Your task to perform on an android device: toggle pop-ups in chrome Image 0: 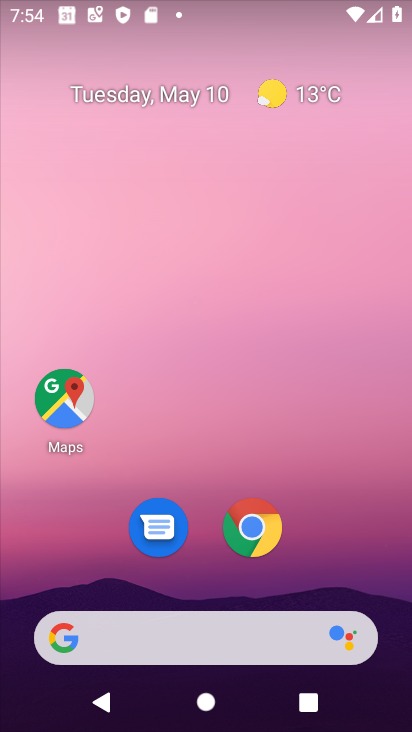
Step 0: click (252, 520)
Your task to perform on an android device: toggle pop-ups in chrome Image 1: 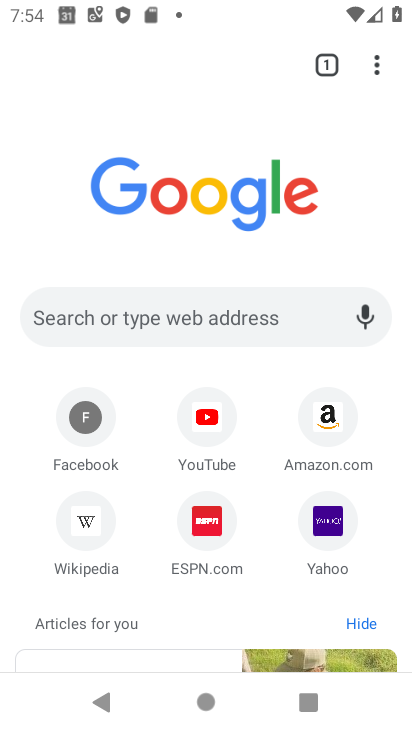
Step 1: click (376, 65)
Your task to perform on an android device: toggle pop-ups in chrome Image 2: 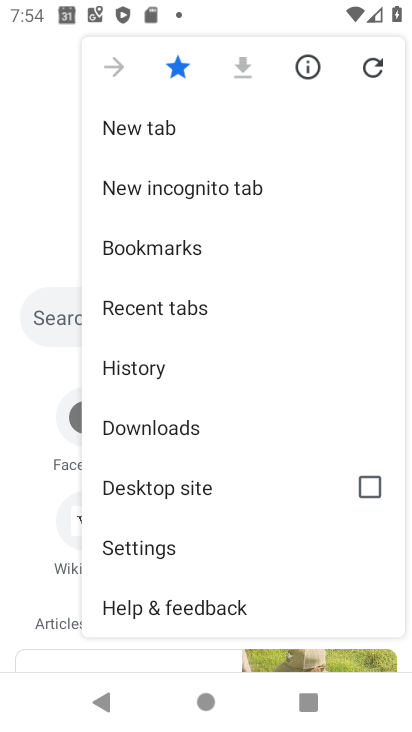
Step 2: click (169, 546)
Your task to perform on an android device: toggle pop-ups in chrome Image 3: 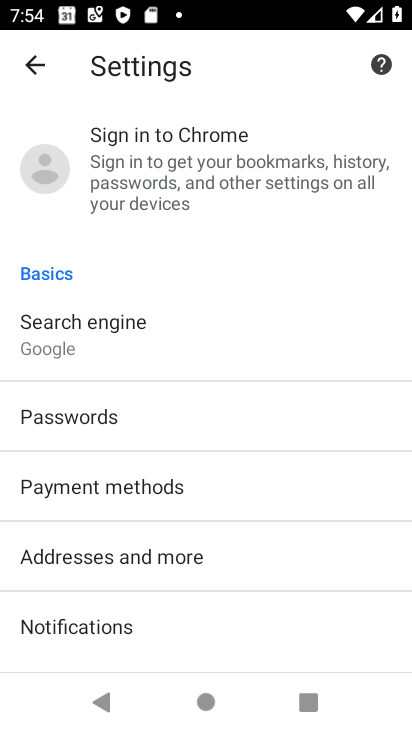
Step 3: drag from (73, 642) to (202, 158)
Your task to perform on an android device: toggle pop-ups in chrome Image 4: 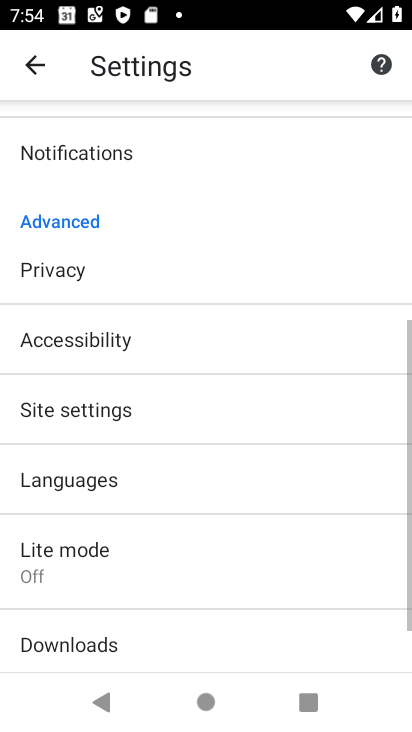
Step 4: click (77, 335)
Your task to perform on an android device: toggle pop-ups in chrome Image 5: 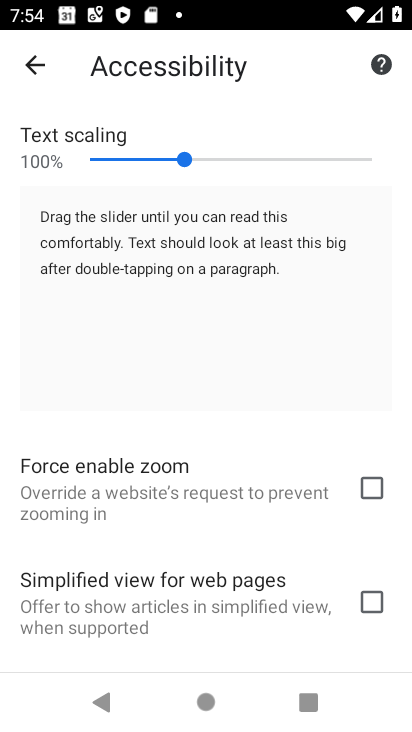
Step 5: press back button
Your task to perform on an android device: toggle pop-ups in chrome Image 6: 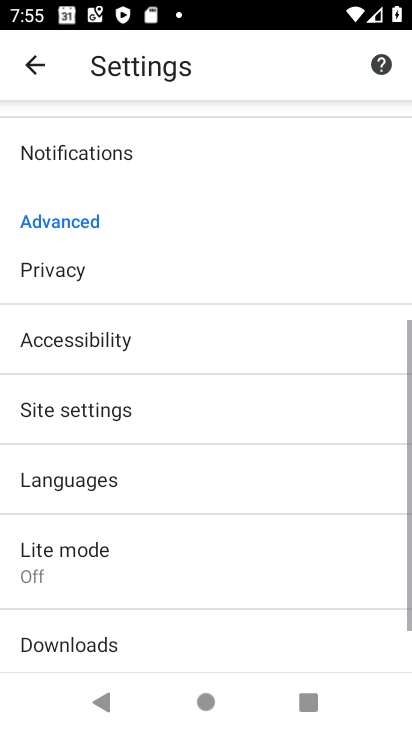
Step 6: click (85, 414)
Your task to perform on an android device: toggle pop-ups in chrome Image 7: 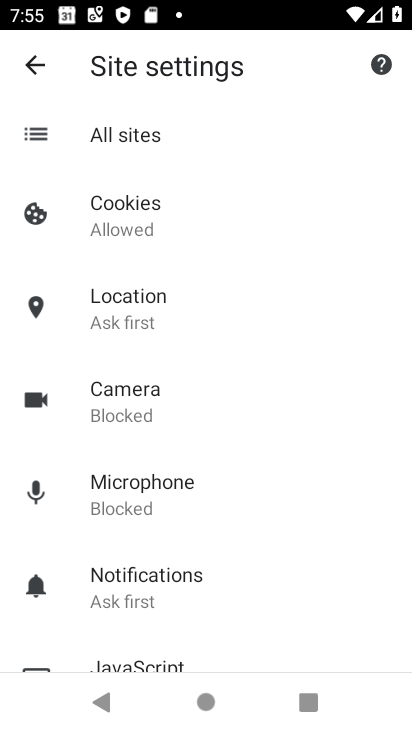
Step 7: drag from (133, 586) to (221, 310)
Your task to perform on an android device: toggle pop-ups in chrome Image 8: 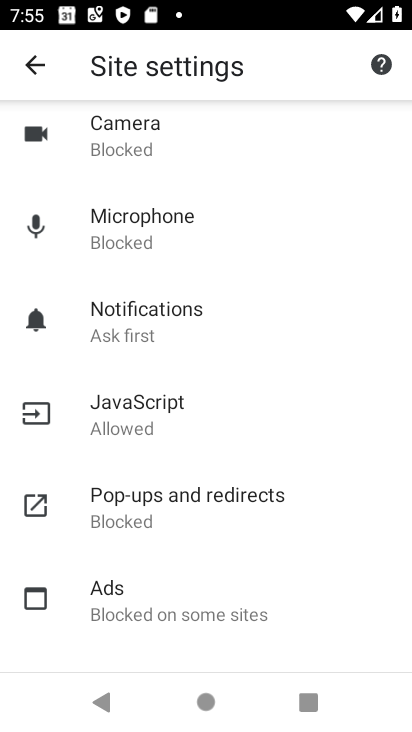
Step 8: click (118, 497)
Your task to perform on an android device: toggle pop-ups in chrome Image 9: 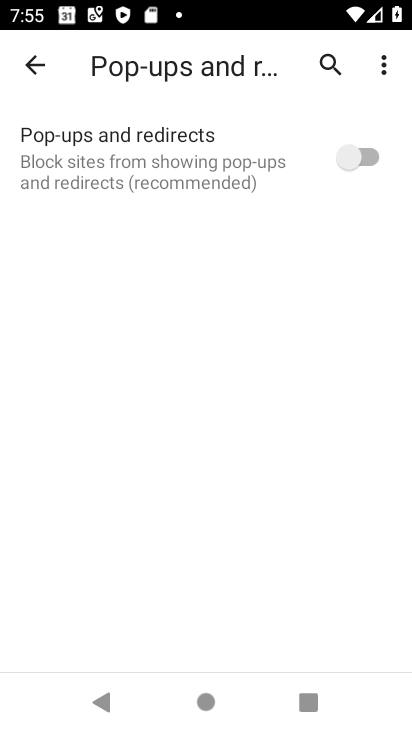
Step 9: click (341, 161)
Your task to perform on an android device: toggle pop-ups in chrome Image 10: 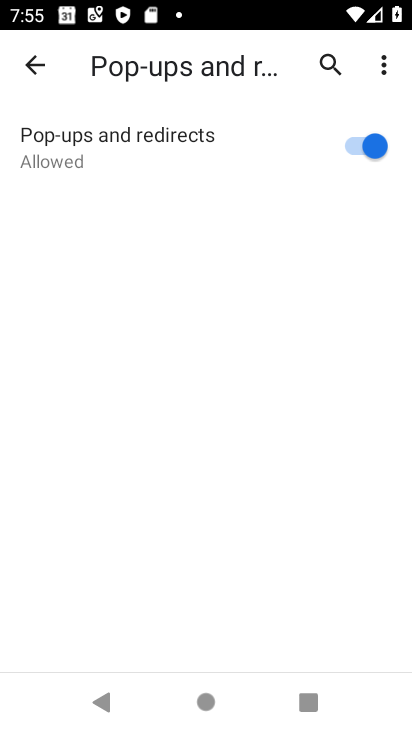
Step 10: task complete